Your task to perform on an android device: Go to Yahoo.com Image 0: 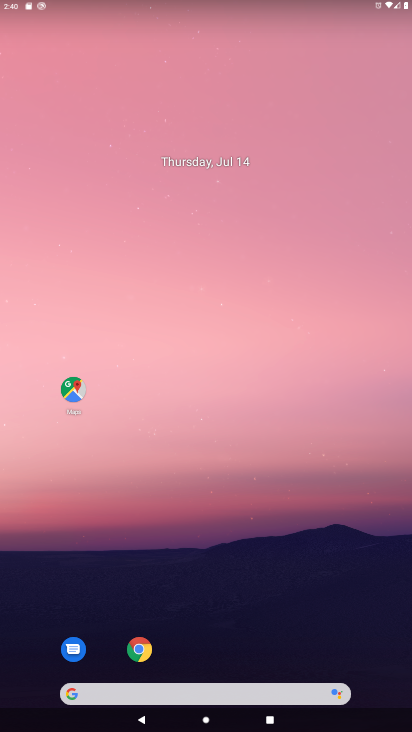
Step 0: click (134, 642)
Your task to perform on an android device: Go to Yahoo.com Image 1: 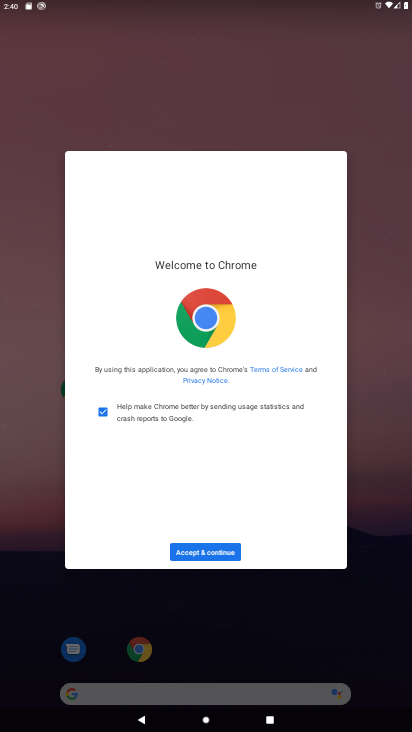
Step 1: click (213, 551)
Your task to perform on an android device: Go to Yahoo.com Image 2: 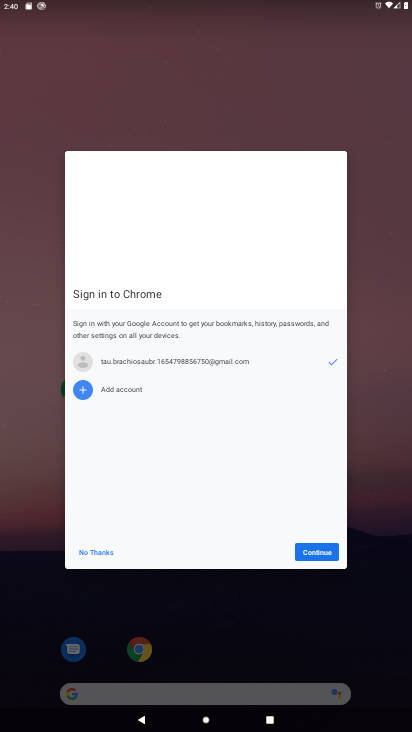
Step 2: click (308, 542)
Your task to perform on an android device: Go to Yahoo.com Image 3: 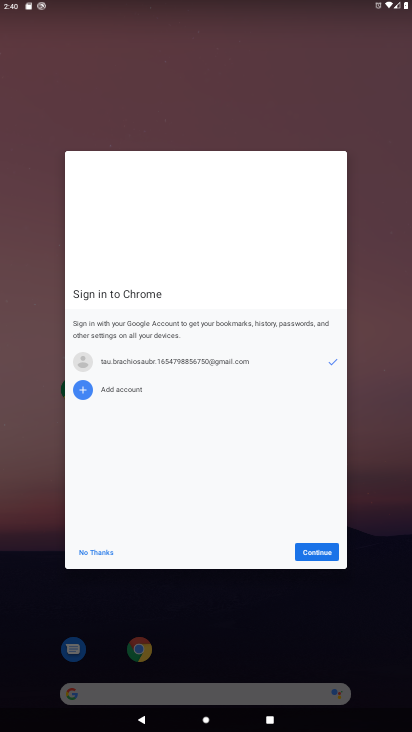
Step 3: click (308, 542)
Your task to perform on an android device: Go to Yahoo.com Image 4: 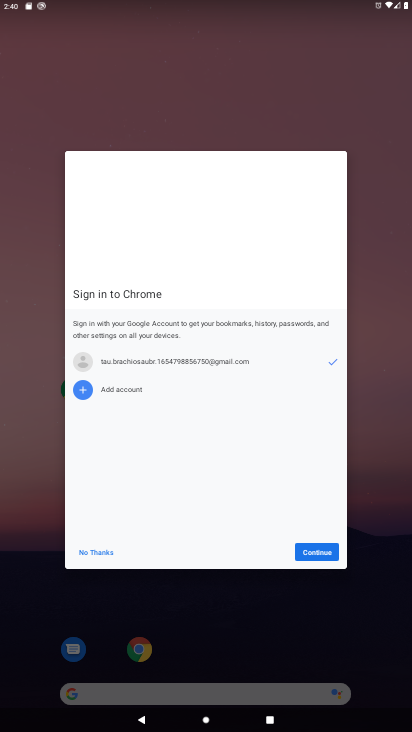
Step 4: click (309, 551)
Your task to perform on an android device: Go to Yahoo.com Image 5: 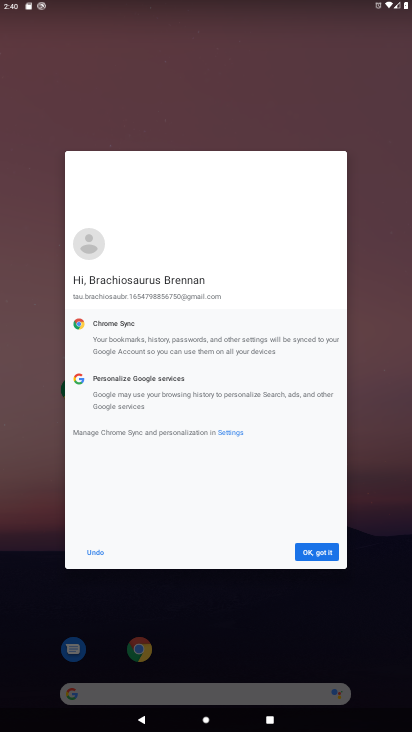
Step 5: click (309, 551)
Your task to perform on an android device: Go to Yahoo.com Image 6: 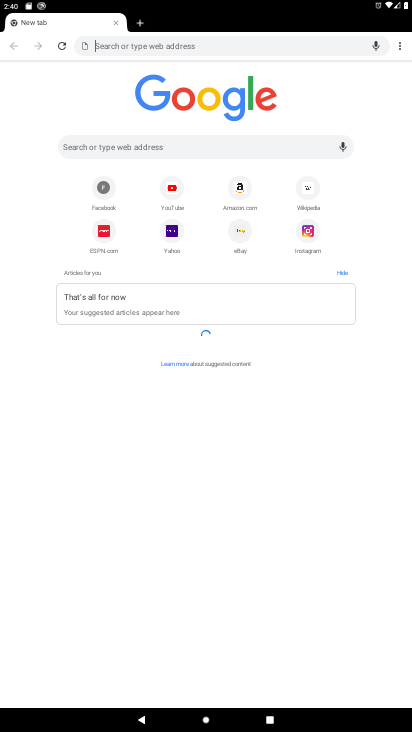
Step 6: click (167, 231)
Your task to perform on an android device: Go to Yahoo.com Image 7: 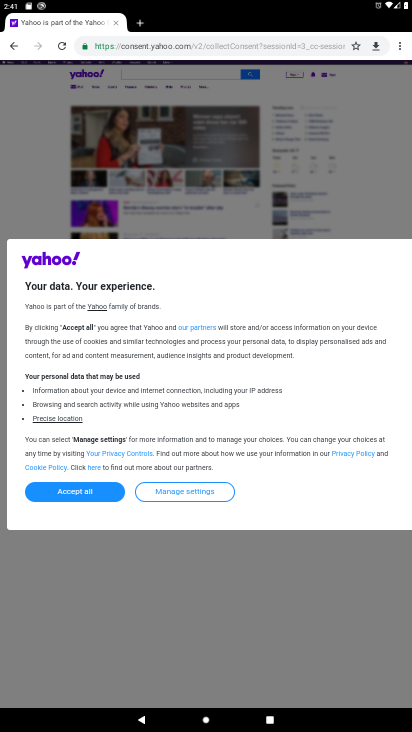
Step 7: task complete